Your task to perform on an android device: turn pop-ups off in chrome Image 0: 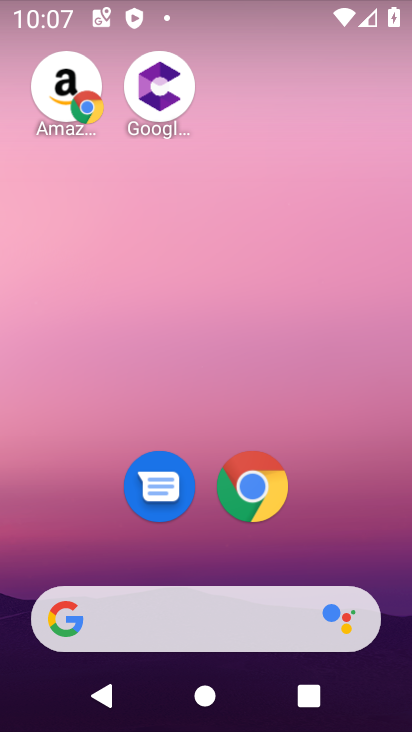
Step 0: click (253, 486)
Your task to perform on an android device: turn pop-ups off in chrome Image 1: 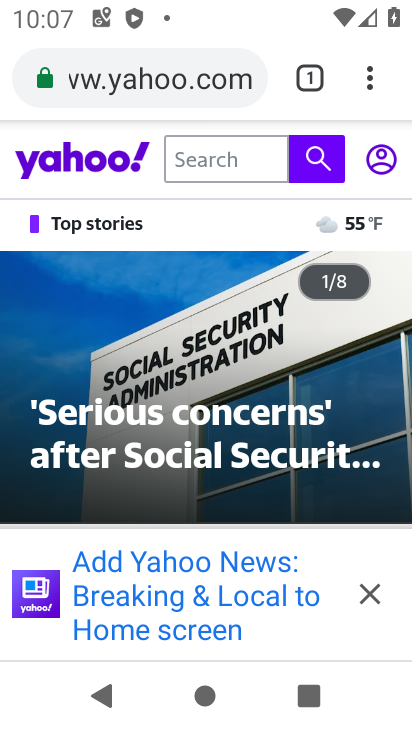
Step 1: click (370, 75)
Your task to perform on an android device: turn pop-ups off in chrome Image 2: 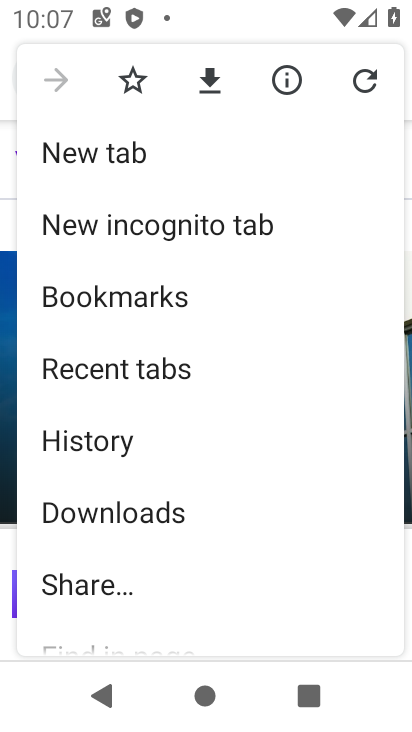
Step 2: drag from (142, 552) to (182, 447)
Your task to perform on an android device: turn pop-ups off in chrome Image 3: 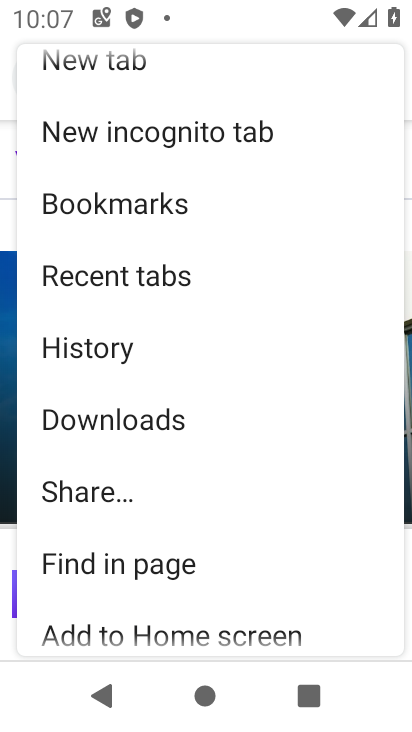
Step 3: drag from (108, 524) to (170, 429)
Your task to perform on an android device: turn pop-ups off in chrome Image 4: 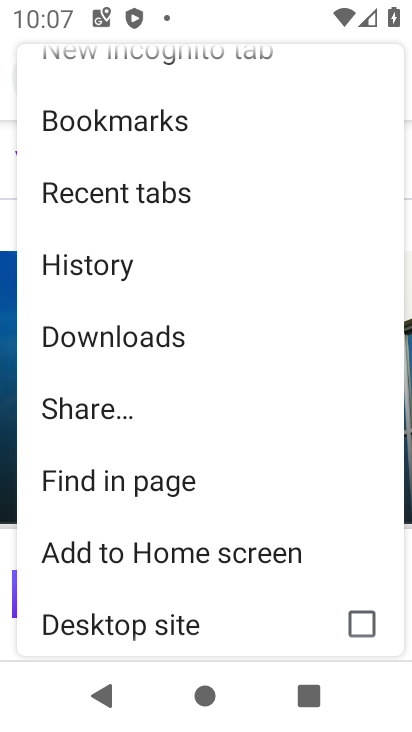
Step 4: drag from (103, 521) to (183, 423)
Your task to perform on an android device: turn pop-ups off in chrome Image 5: 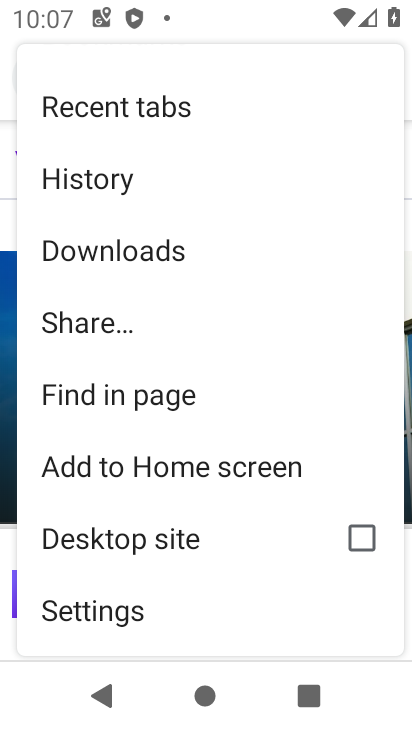
Step 5: drag from (139, 561) to (193, 453)
Your task to perform on an android device: turn pop-ups off in chrome Image 6: 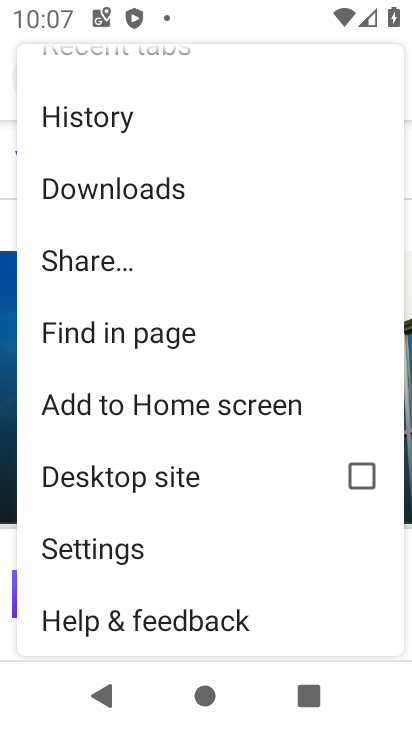
Step 6: click (117, 545)
Your task to perform on an android device: turn pop-ups off in chrome Image 7: 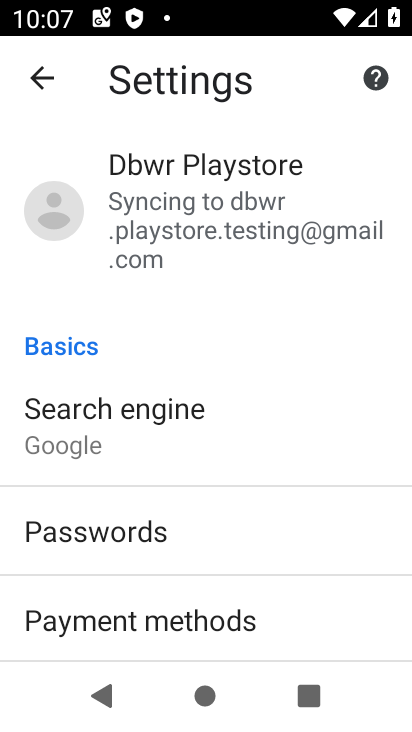
Step 7: drag from (195, 564) to (227, 457)
Your task to perform on an android device: turn pop-ups off in chrome Image 8: 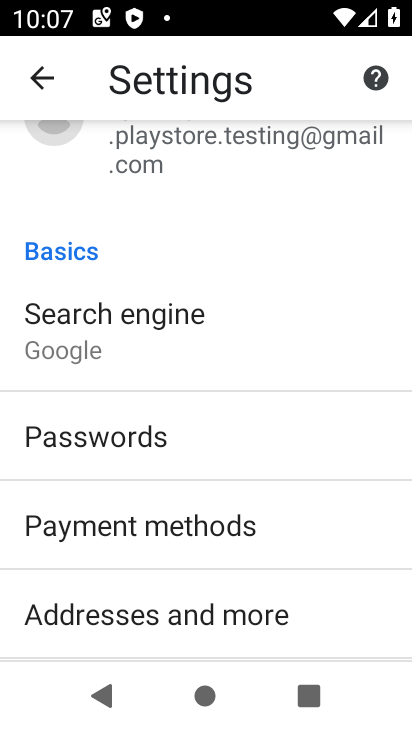
Step 8: drag from (177, 571) to (230, 462)
Your task to perform on an android device: turn pop-ups off in chrome Image 9: 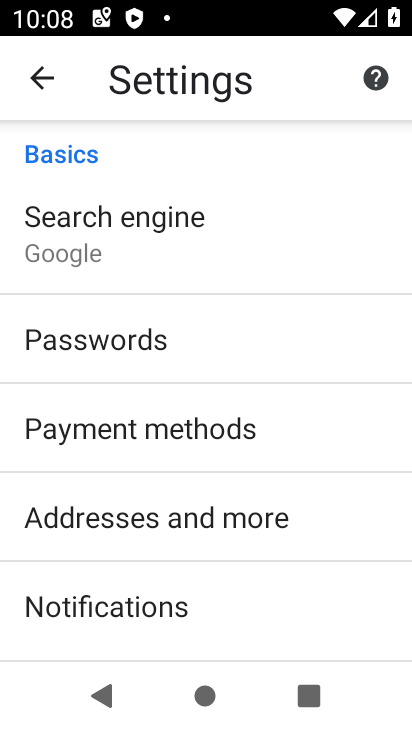
Step 9: drag from (202, 586) to (259, 476)
Your task to perform on an android device: turn pop-ups off in chrome Image 10: 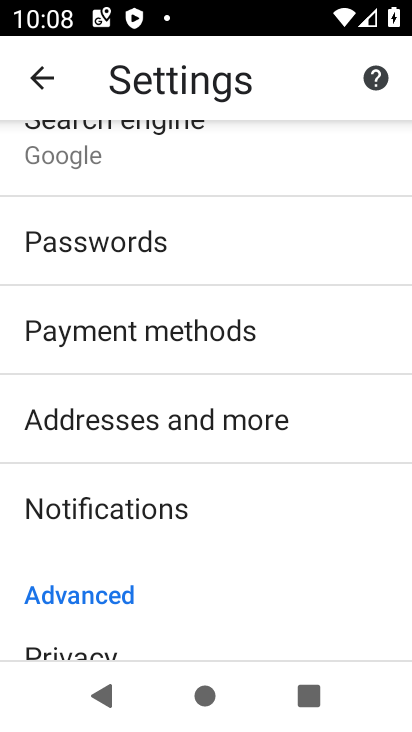
Step 10: drag from (185, 596) to (235, 490)
Your task to perform on an android device: turn pop-ups off in chrome Image 11: 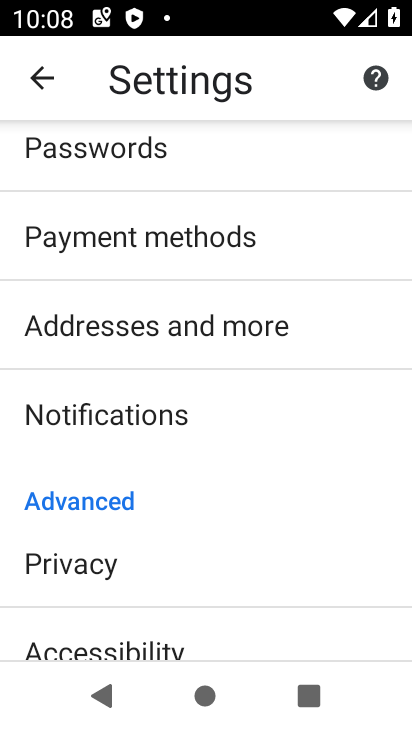
Step 11: drag from (174, 587) to (254, 472)
Your task to perform on an android device: turn pop-ups off in chrome Image 12: 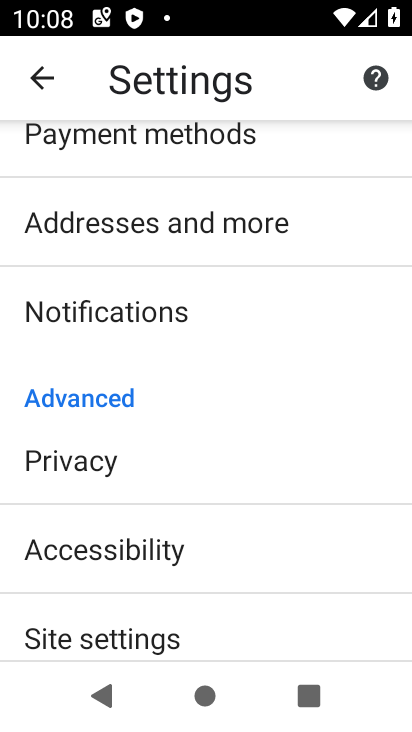
Step 12: drag from (185, 577) to (254, 476)
Your task to perform on an android device: turn pop-ups off in chrome Image 13: 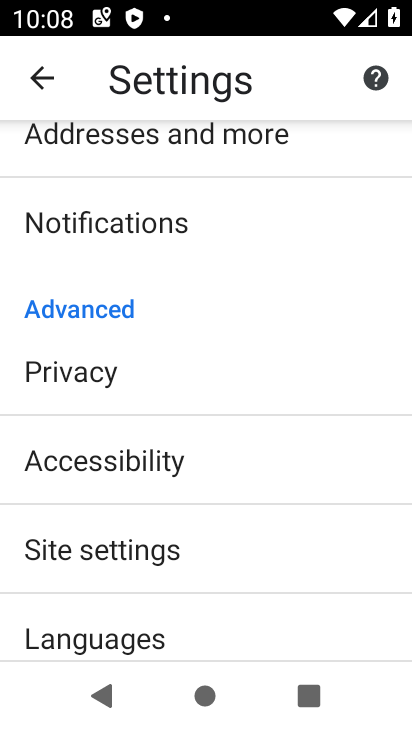
Step 13: drag from (213, 580) to (243, 495)
Your task to perform on an android device: turn pop-ups off in chrome Image 14: 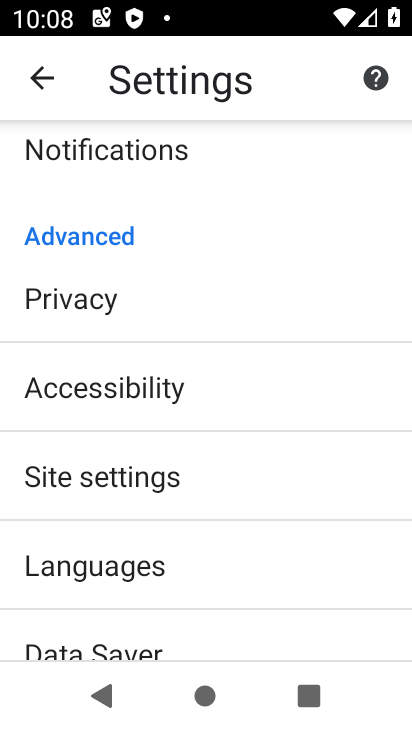
Step 14: click (169, 482)
Your task to perform on an android device: turn pop-ups off in chrome Image 15: 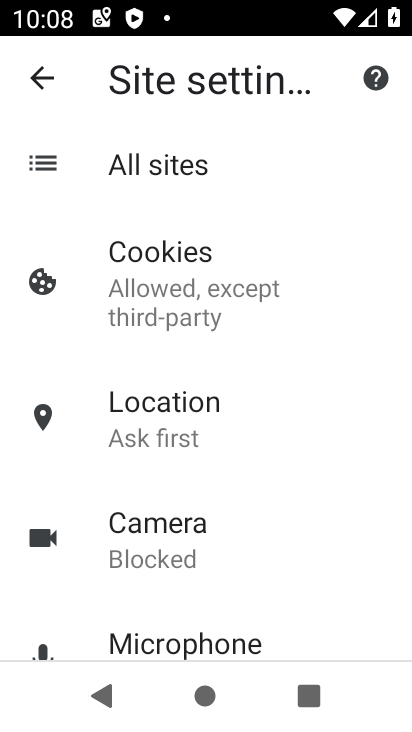
Step 15: drag from (235, 538) to (279, 432)
Your task to perform on an android device: turn pop-ups off in chrome Image 16: 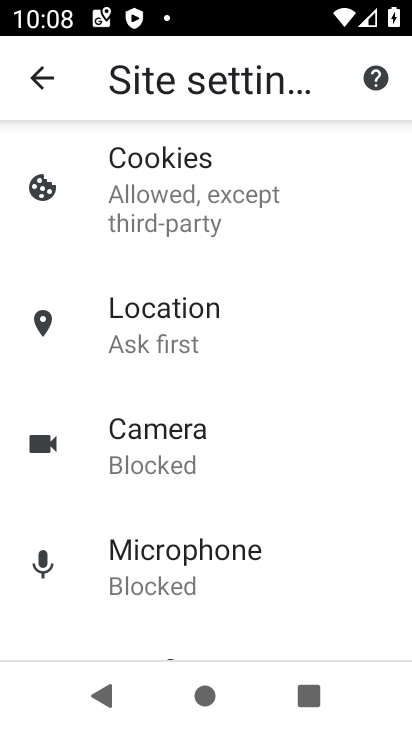
Step 16: drag from (235, 591) to (256, 401)
Your task to perform on an android device: turn pop-ups off in chrome Image 17: 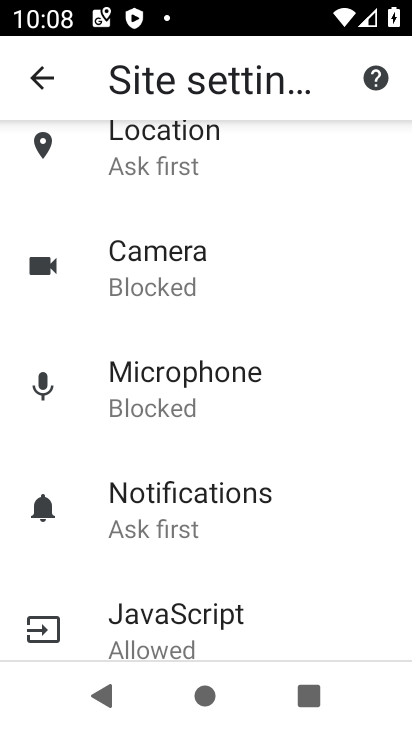
Step 17: drag from (198, 552) to (262, 452)
Your task to perform on an android device: turn pop-ups off in chrome Image 18: 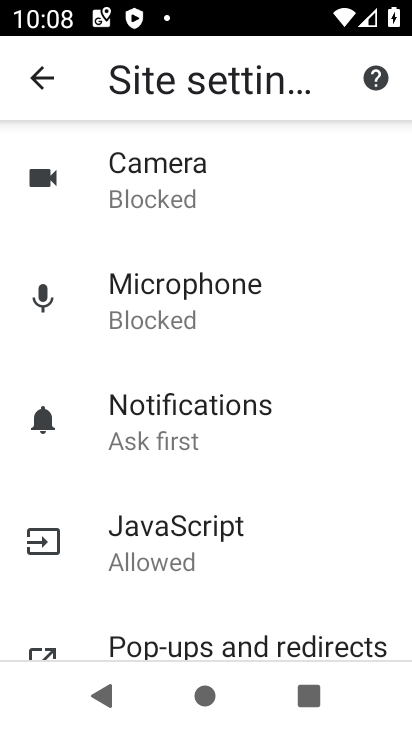
Step 18: drag from (192, 592) to (253, 436)
Your task to perform on an android device: turn pop-ups off in chrome Image 19: 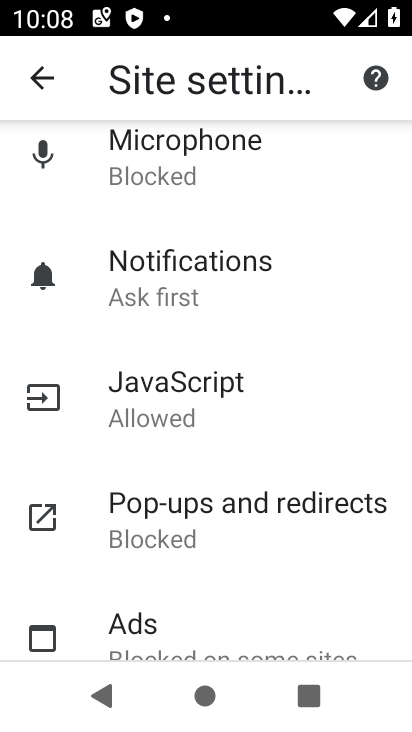
Step 19: click (210, 520)
Your task to perform on an android device: turn pop-ups off in chrome Image 20: 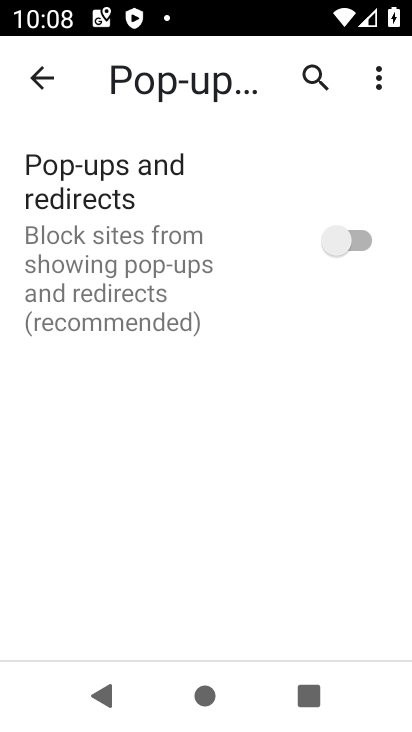
Step 20: task complete